Your task to perform on an android device: toggle show notifications on the lock screen Image 0: 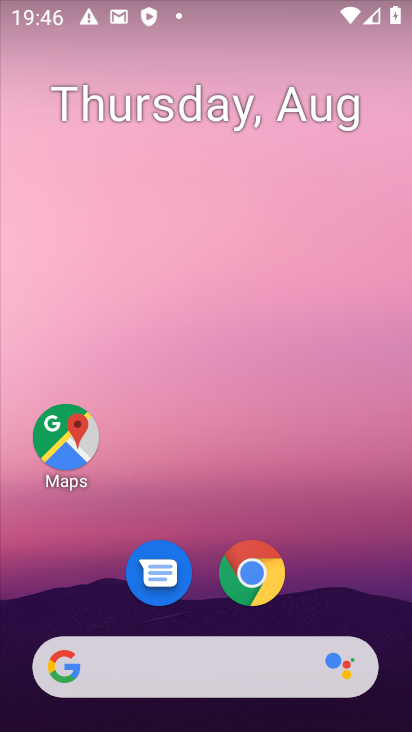
Step 0: drag from (244, 659) to (231, 202)
Your task to perform on an android device: toggle show notifications on the lock screen Image 1: 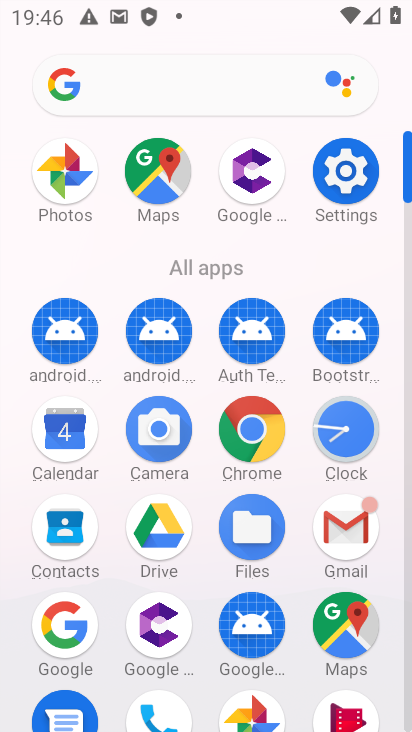
Step 1: click (313, 176)
Your task to perform on an android device: toggle show notifications on the lock screen Image 2: 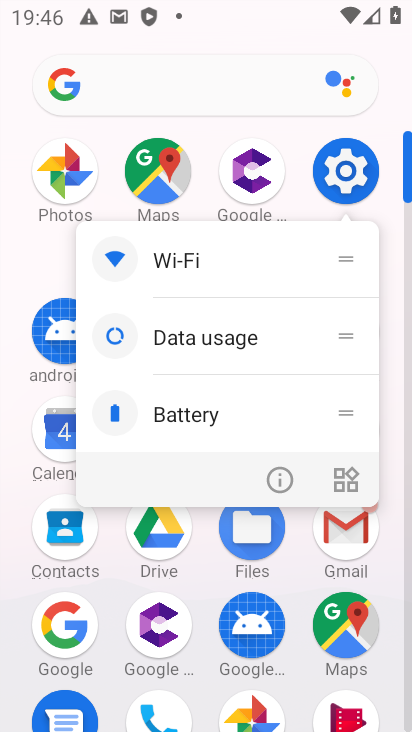
Step 2: click (335, 178)
Your task to perform on an android device: toggle show notifications on the lock screen Image 3: 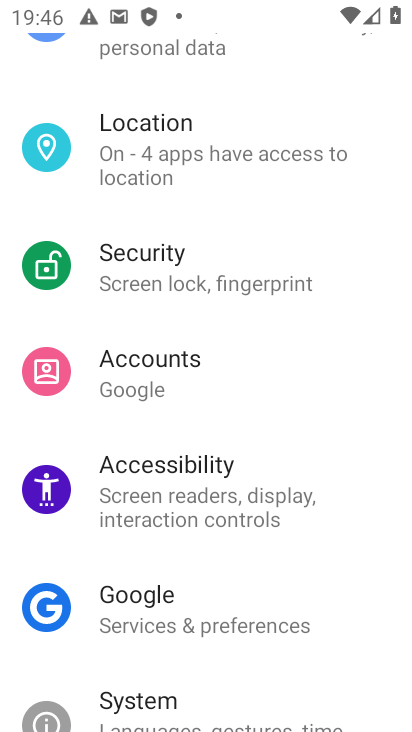
Step 3: drag from (170, 207) to (177, 638)
Your task to perform on an android device: toggle show notifications on the lock screen Image 4: 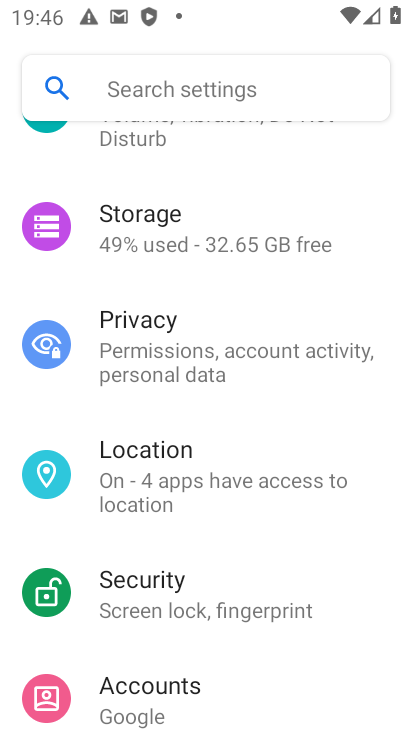
Step 4: drag from (192, 238) to (229, 622)
Your task to perform on an android device: toggle show notifications on the lock screen Image 5: 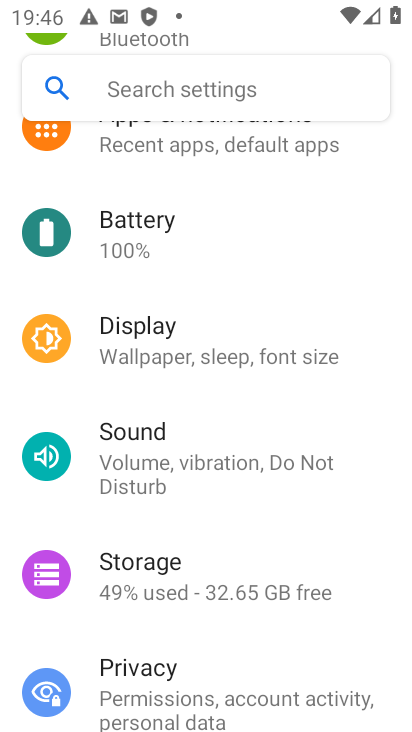
Step 5: drag from (202, 186) to (240, 547)
Your task to perform on an android device: toggle show notifications on the lock screen Image 6: 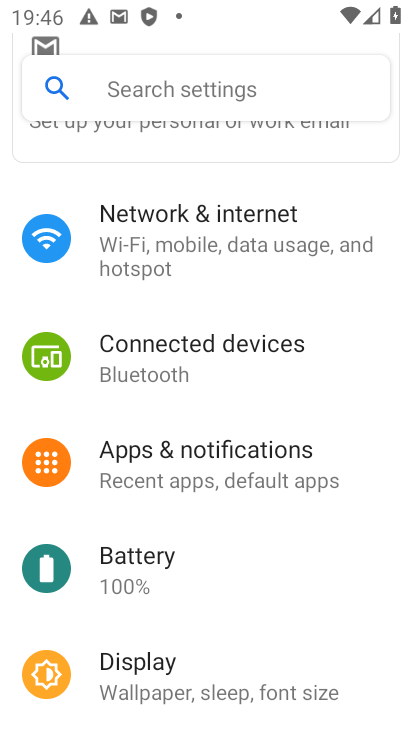
Step 6: click (198, 468)
Your task to perform on an android device: toggle show notifications on the lock screen Image 7: 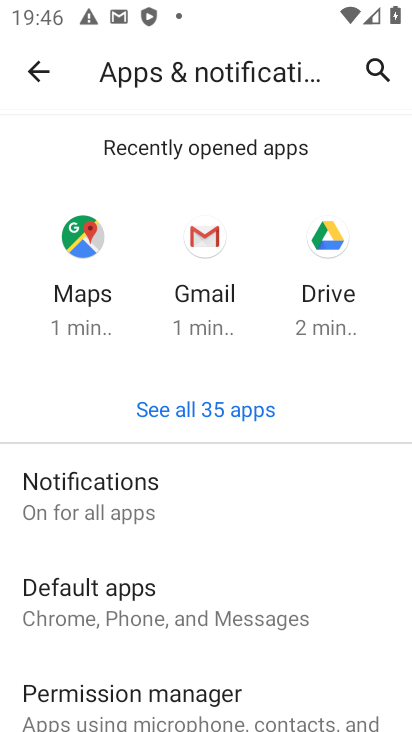
Step 7: drag from (188, 589) to (220, 307)
Your task to perform on an android device: toggle show notifications on the lock screen Image 8: 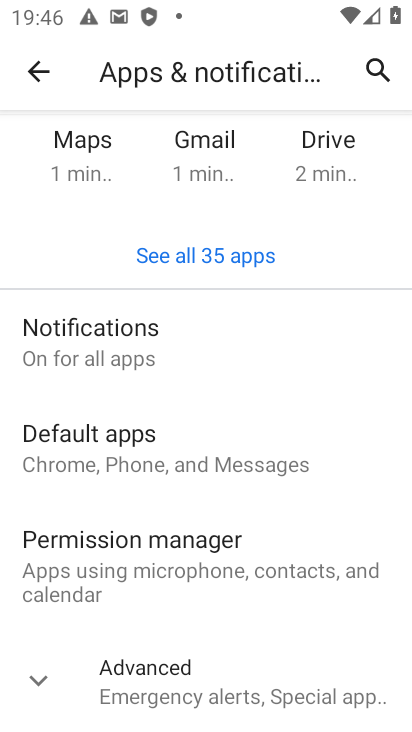
Step 8: click (181, 682)
Your task to perform on an android device: toggle show notifications on the lock screen Image 9: 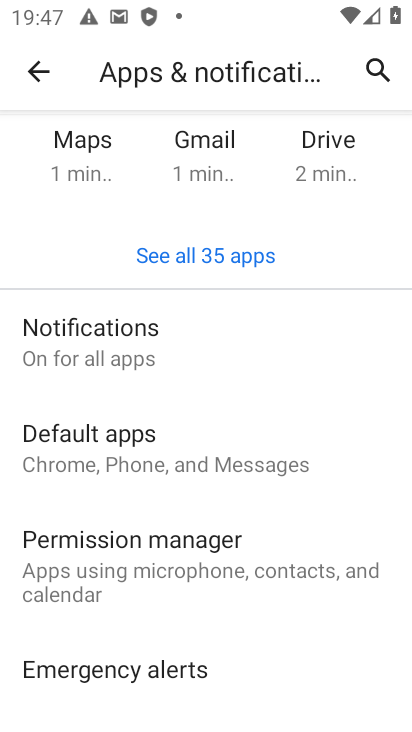
Step 9: click (116, 360)
Your task to perform on an android device: toggle show notifications on the lock screen Image 10: 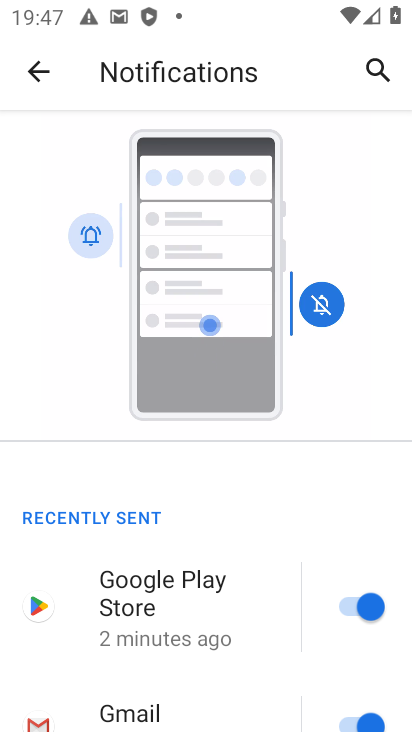
Step 10: drag from (204, 702) to (212, 344)
Your task to perform on an android device: toggle show notifications on the lock screen Image 11: 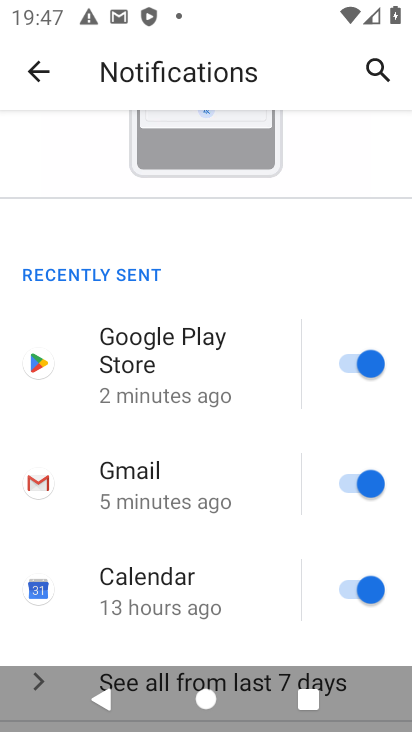
Step 11: drag from (206, 614) to (188, 55)
Your task to perform on an android device: toggle show notifications on the lock screen Image 12: 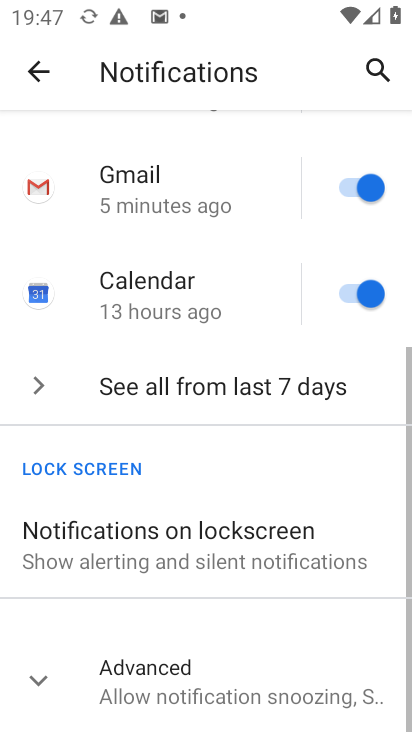
Step 12: drag from (203, 549) to (183, 239)
Your task to perform on an android device: toggle show notifications on the lock screen Image 13: 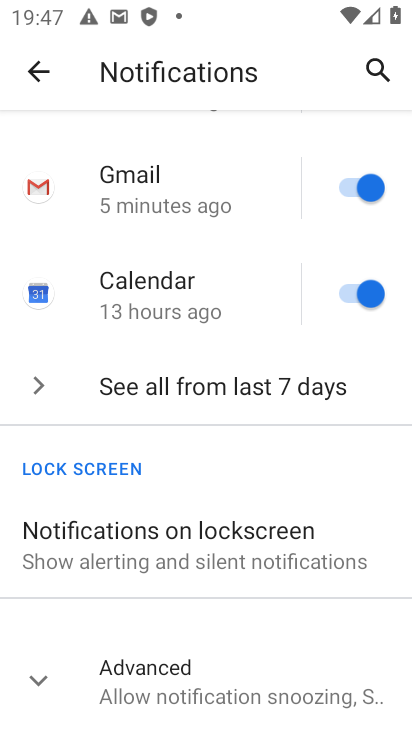
Step 13: click (269, 524)
Your task to perform on an android device: toggle show notifications on the lock screen Image 14: 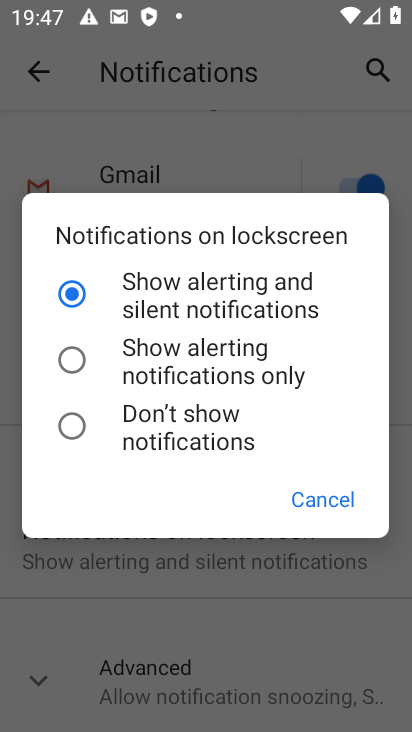
Step 14: click (186, 426)
Your task to perform on an android device: toggle show notifications on the lock screen Image 15: 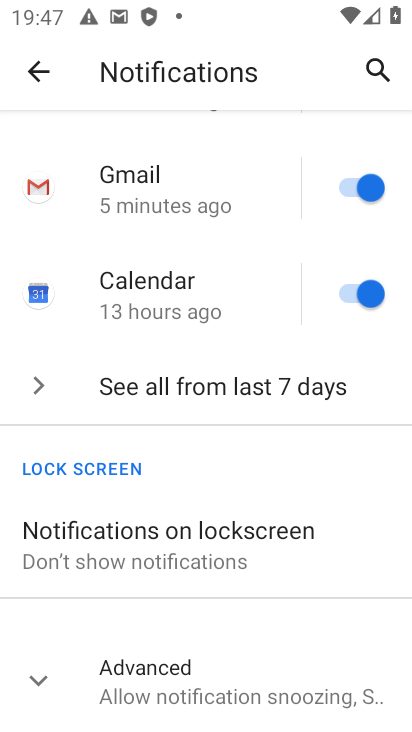
Step 15: task complete